Your task to perform on an android device: toggle airplane mode Image 0: 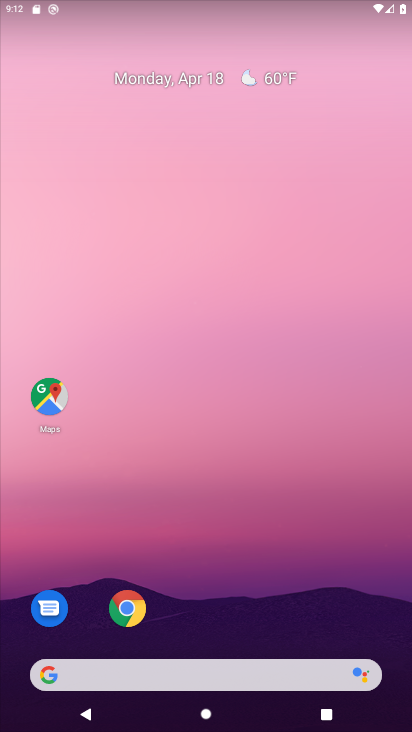
Step 0: drag from (316, 570) to (316, 97)
Your task to perform on an android device: toggle airplane mode Image 1: 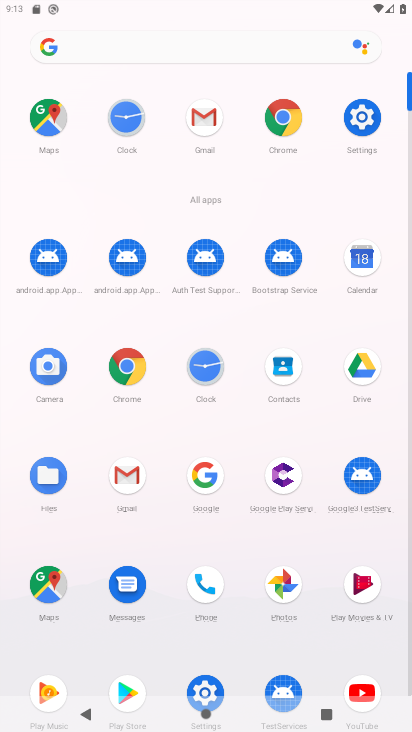
Step 1: click (361, 118)
Your task to perform on an android device: toggle airplane mode Image 2: 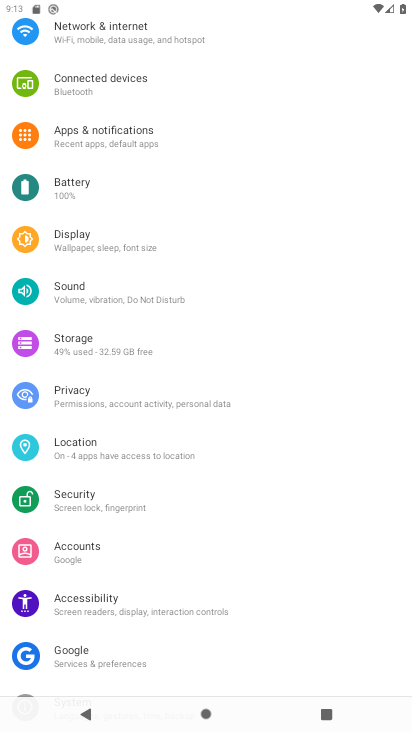
Step 2: drag from (246, 124) to (224, 467)
Your task to perform on an android device: toggle airplane mode Image 3: 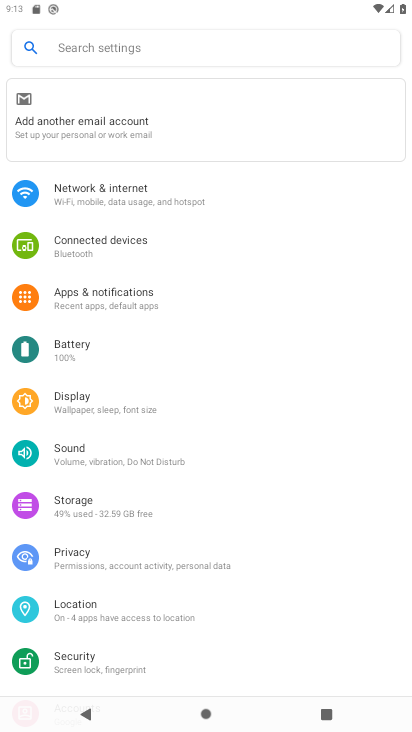
Step 3: click (182, 203)
Your task to perform on an android device: toggle airplane mode Image 4: 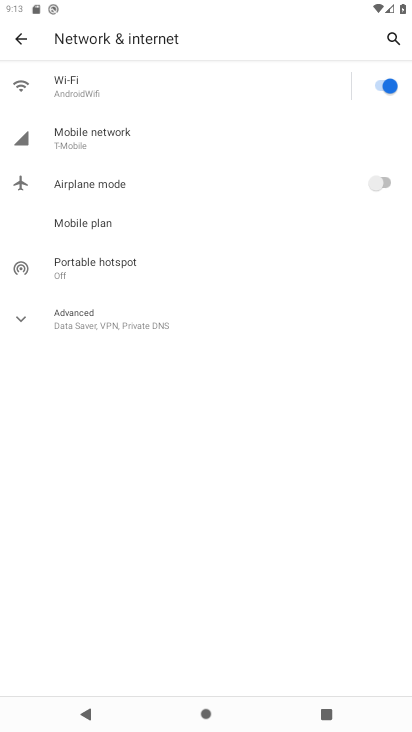
Step 4: click (387, 179)
Your task to perform on an android device: toggle airplane mode Image 5: 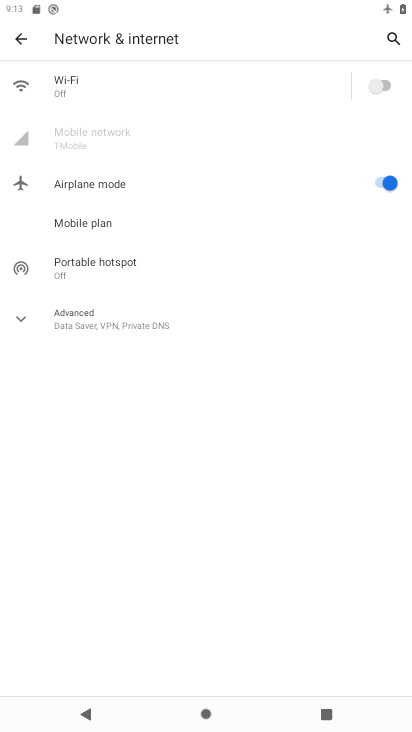
Step 5: task complete